Your task to perform on an android device: Go to location settings Image 0: 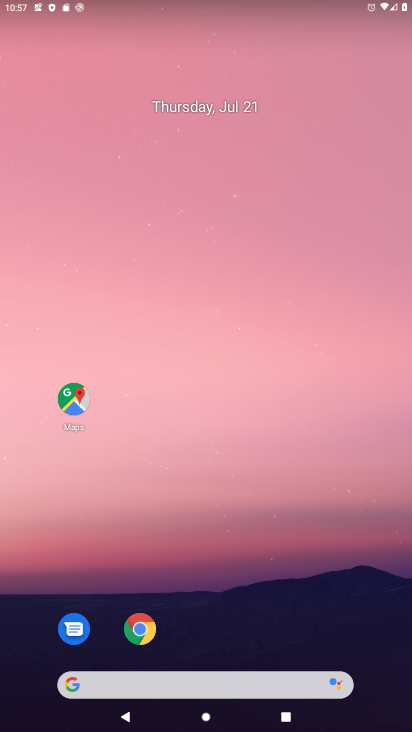
Step 0: drag from (194, 642) to (257, 134)
Your task to perform on an android device: Go to location settings Image 1: 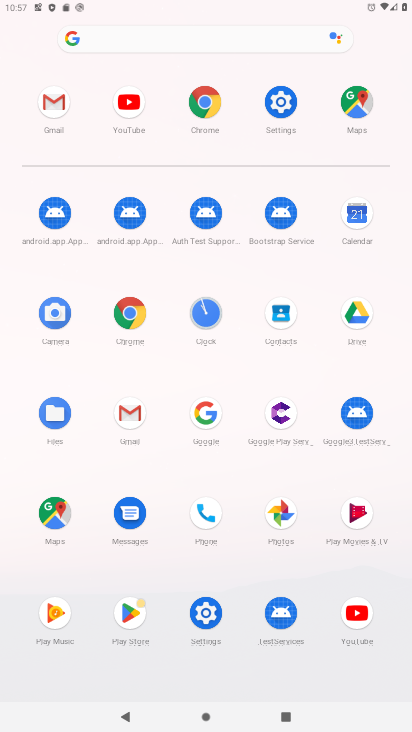
Step 1: click (292, 121)
Your task to perform on an android device: Go to location settings Image 2: 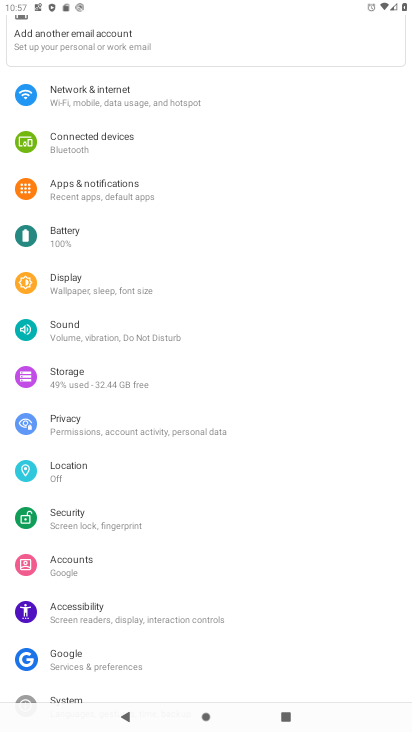
Step 2: click (102, 469)
Your task to perform on an android device: Go to location settings Image 3: 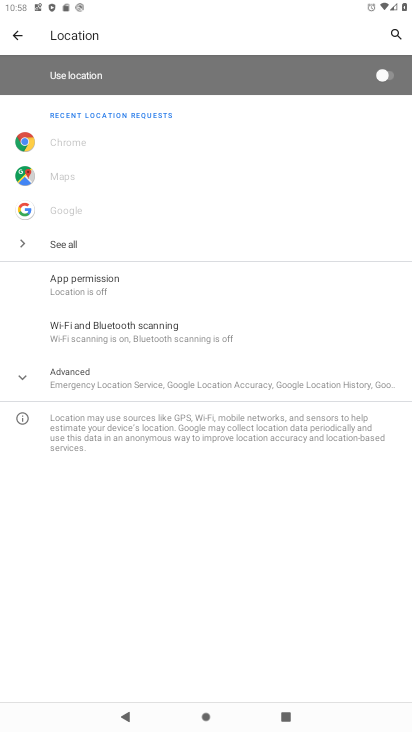
Step 3: task complete